Your task to perform on an android device: Open Yahoo.com Image 0: 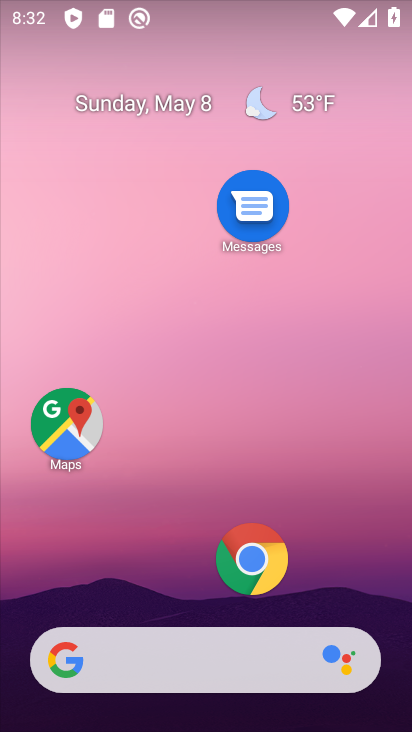
Step 0: click (247, 558)
Your task to perform on an android device: Open Yahoo.com Image 1: 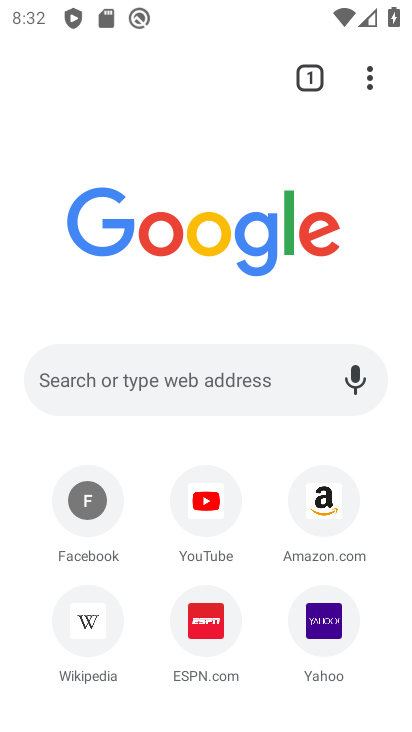
Step 1: click (327, 626)
Your task to perform on an android device: Open Yahoo.com Image 2: 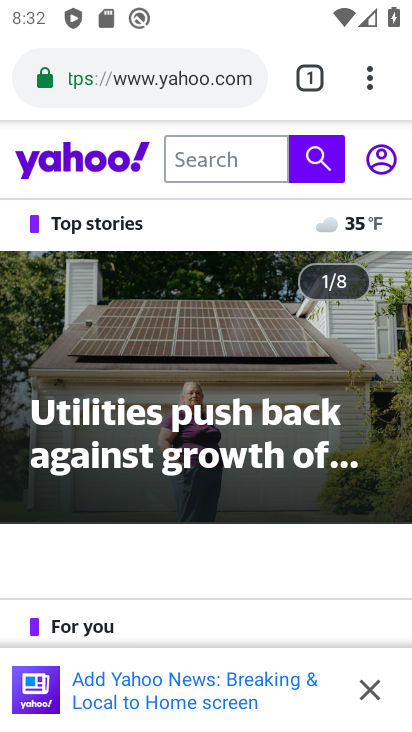
Step 2: task complete